Your task to perform on an android device: turn vacation reply on in the gmail app Image 0: 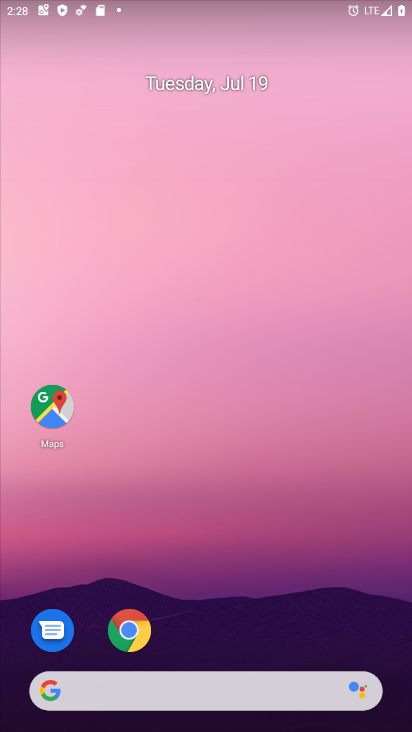
Step 0: press home button
Your task to perform on an android device: turn vacation reply on in the gmail app Image 1: 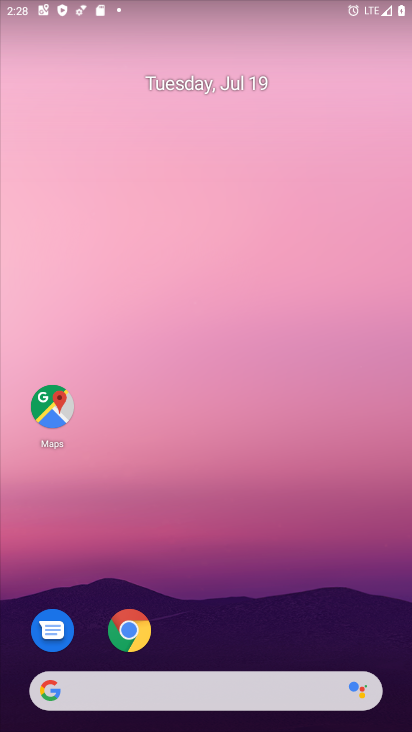
Step 1: drag from (218, 652) to (261, 51)
Your task to perform on an android device: turn vacation reply on in the gmail app Image 2: 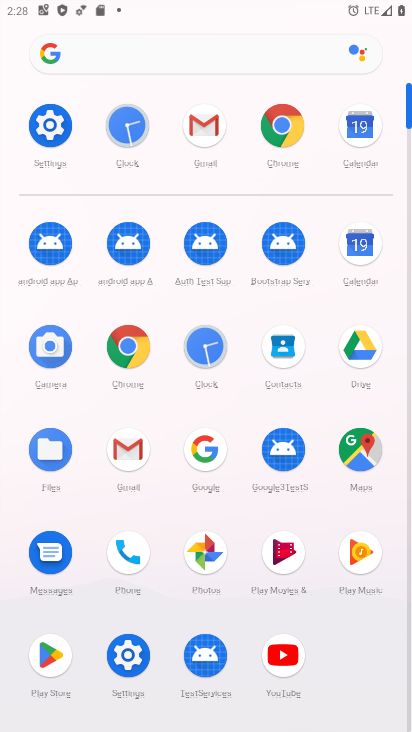
Step 2: click (125, 441)
Your task to perform on an android device: turn vacation reply on in the gmail app Image 3: 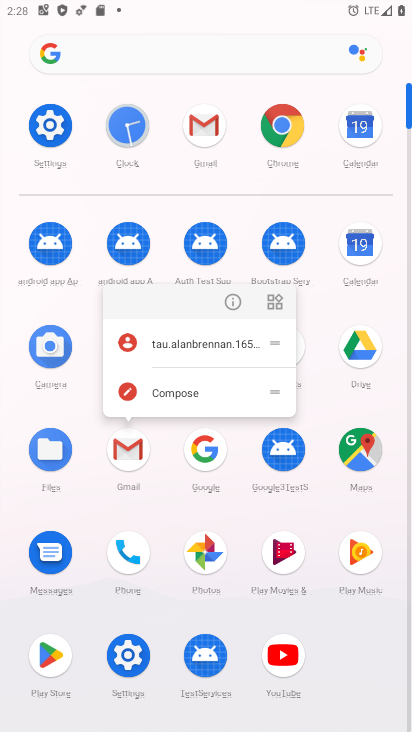
Step 3: click (126, 435)
Your task to perform on an android device: turn vacation reply on in the gmail app Image 4: 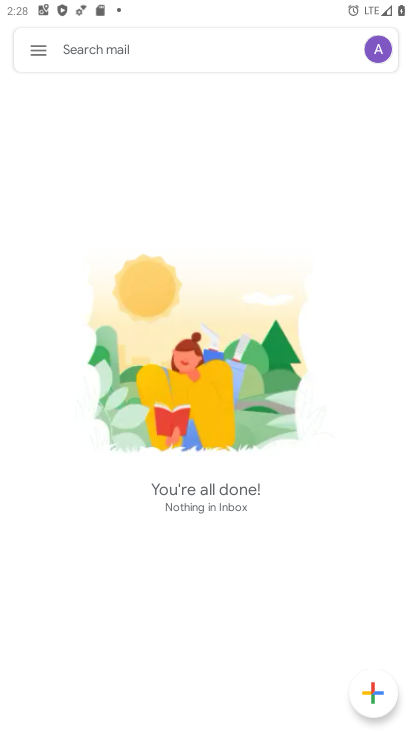
Step 4: click (41, 45)
Your task to perform on an android device: turn vacation reply on in the gmail app Image 5: 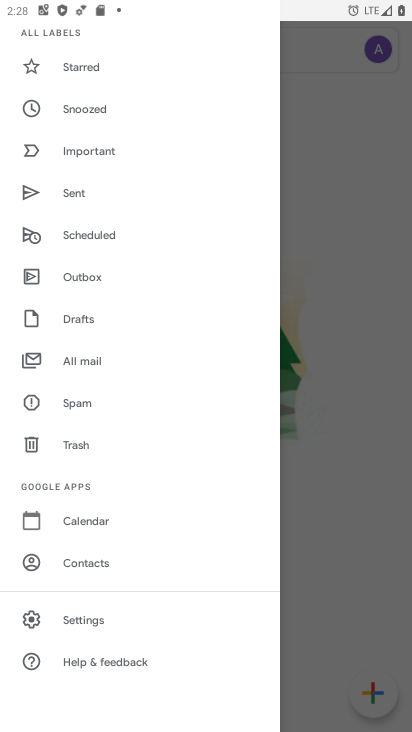
Step 5: click (93, 617)
Your task to perform on an android device: turn vacation reply on in the gmail app Image 6: 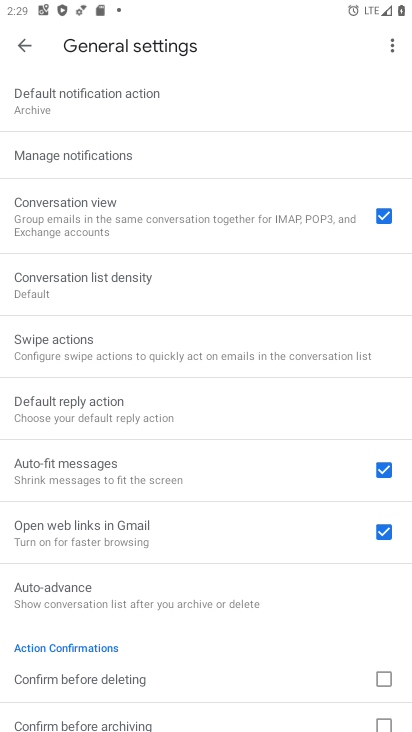
Step 6: click (23, 38)
Your task to perform on an android device: turn vacation reply on in the gmail app Image 7: 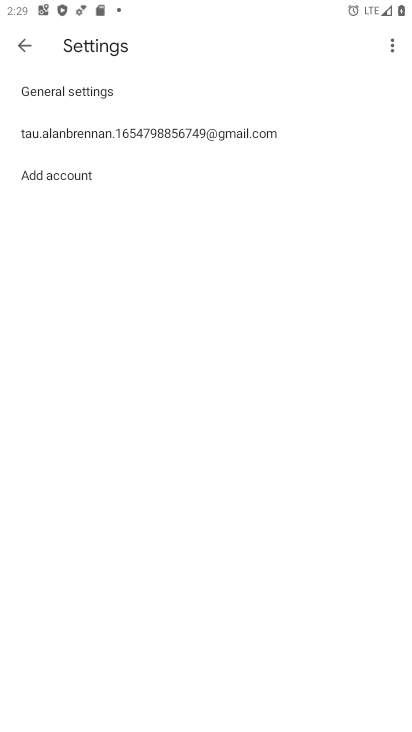
Step 7: click (183, 131)
Your task to perform on an android device: turn vacation reply on in the gmail app Image 8: 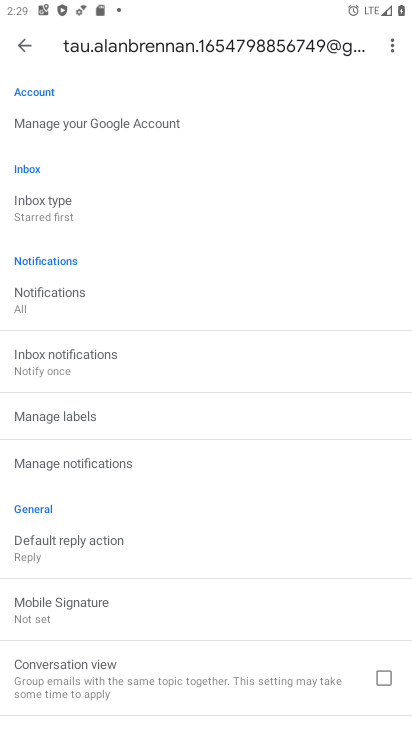
Step 8: drag from (100, 600) to (137, 211)
Your task to perform on an android device: turn vacation reply on in the gmail app Image 9: 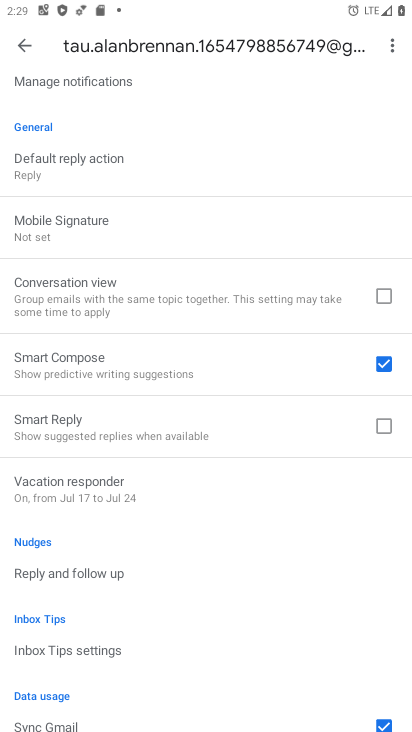
Step 9: click (104, 481)
Your task to perform on an android device: turn vacation reply on in the gmail app Image 10: 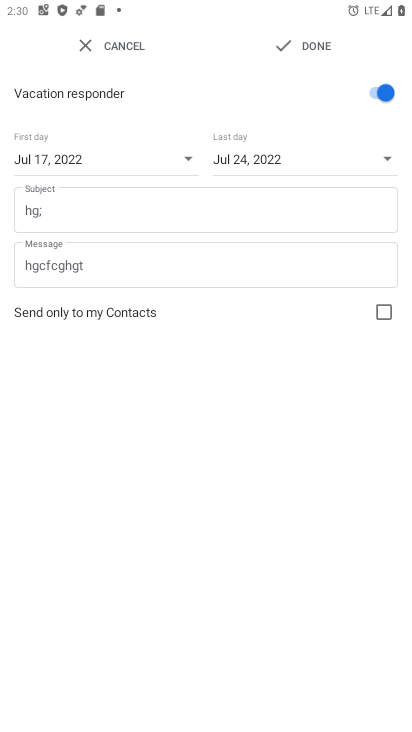
Step 10: task complete